Your task to perform on an android device: Search for the new iphone 13 pro on Etsy. Image 0: 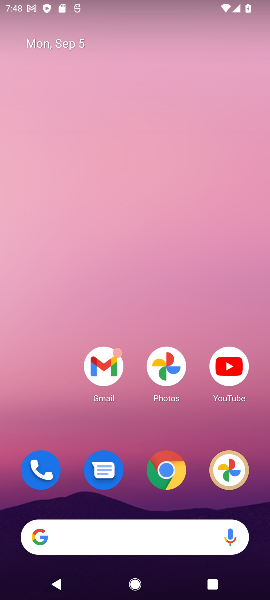
Step 0: click (146, 38)
Your task to perform on an android device: Search for the new iphone 13 pro on Etsy. Image 1: 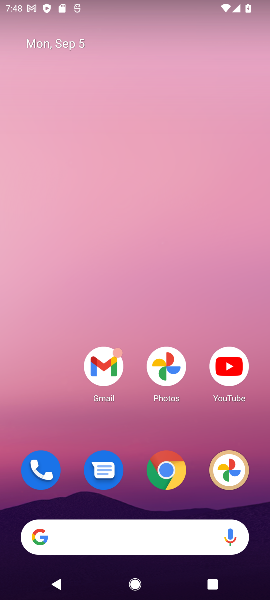
Step 1: click (144, 472)
Your task to perform on an android device: Search for the new iphone 13 pro on Etsy. Image 2: 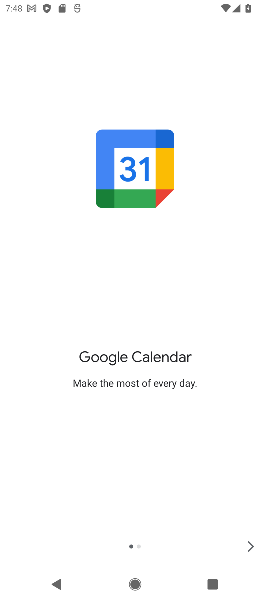
Step 2: press home button
Your task to perform on an android device: Search for the new iphone 13 pro on Etsy. Image 3: 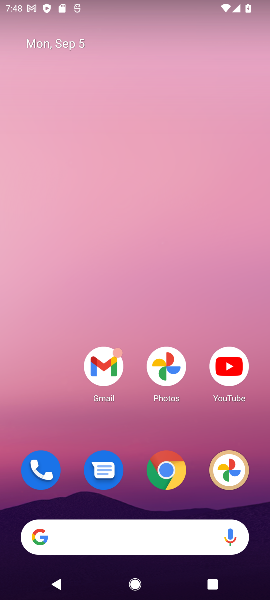
Step 3: click (186, 469)
Your task to perform on an android device: Search for the new iphone 13 pro on Etsy. Image 4: 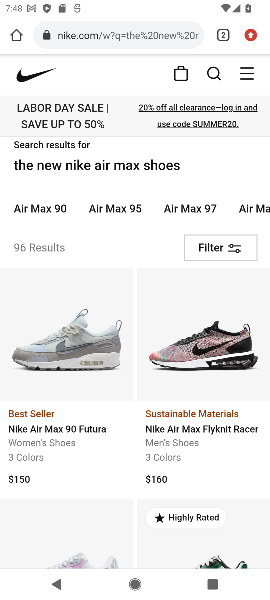
Step 4: click (219, 29)
Your task to perform on an android device: Search for the new iphone 13 pro on Etsy. Image 5: 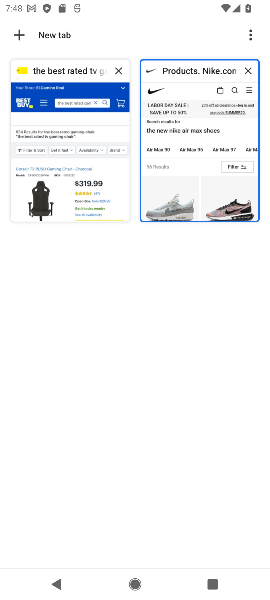
Step 5: click (12, 36)
Your task to perform on an android device: Search for the new iphone 13 pro on Etsy. Image 6: 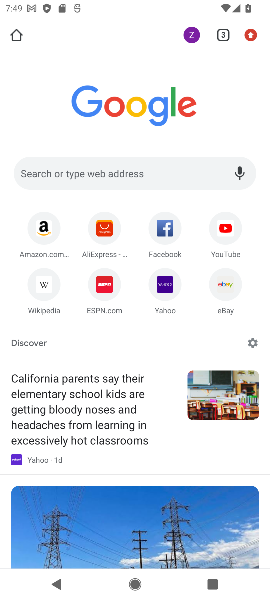
Step 6: click (97, 181)
Your task to perform on an android device: Search for the new iphone 13 pro on Etsy. Image 7: 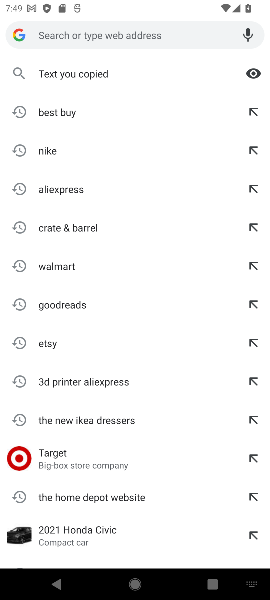
Step 7: type "Etsy"
Your task to perform on an android device: Search for the new iphone 13 pro on Etsy. Image 8: 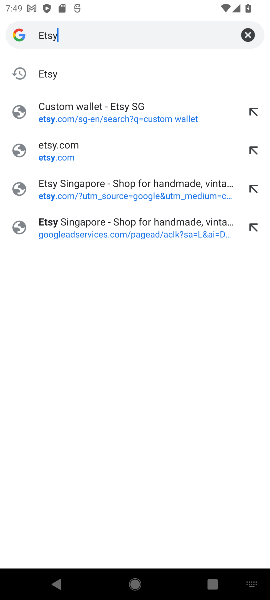
Step 8: type ""
Your task to perform on an android device: Search for the new iphone 13 pro on Etsy. Image 9: 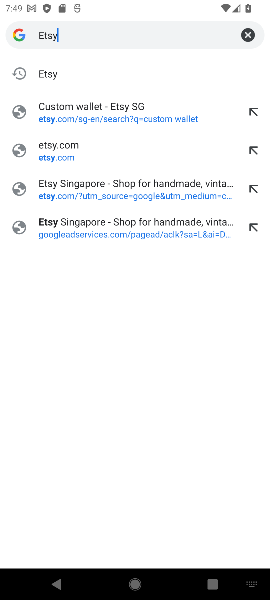
Step 9: click (50, 82)
Your task to perform on an android device: Search for the new iphone 13 pro on Etsy. Image 10: 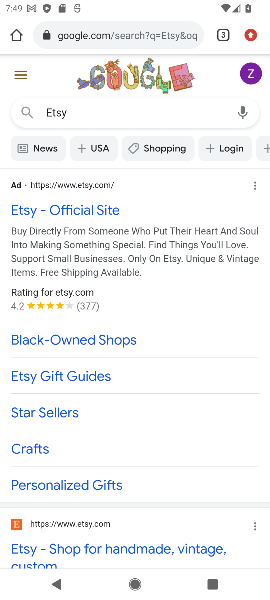
Step 10: click (59, 216)
Your task to perform on an android device: Search for the new iphone 13 pro on Etsy. Image 11: 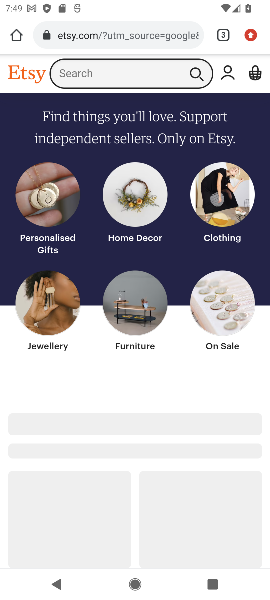
Step 11: click (118, 86)
Your task to perform on an android device: Search for the new iphone 13 pro on Etsy. Image 12: 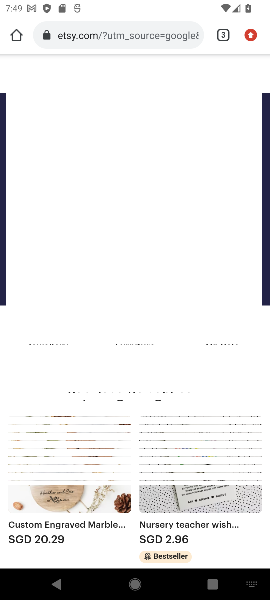
Step 12: type "the new iphone 13 pro "
Your task to perform on an android device: Search for the new iphone 13 pro on Etsy. Image 13: 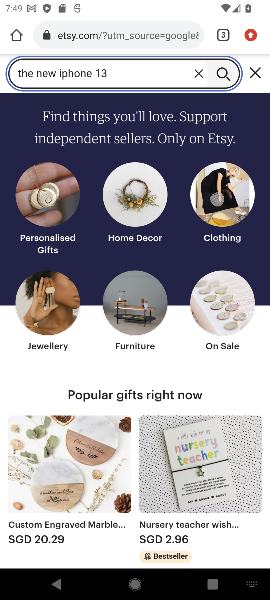
Step 13: type ""
Your task to perform on an android device: Search for the new iphone 13 pro on Etsy. Image 14: 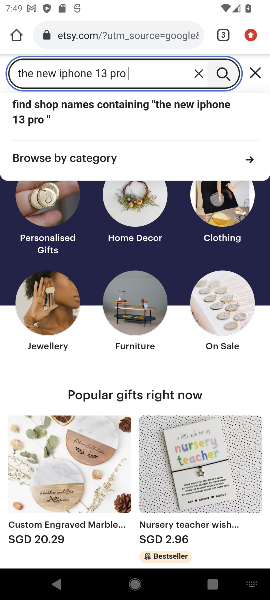
Step 14: click (224, 71)
Your task to perform on an android device: Search for the new iphone 13 pro on Etsy. Image 15: 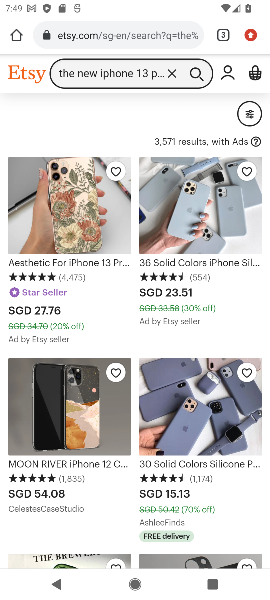
Step 15: drag from (150, 334) to (123, 116)
Your task to perform on an android device: Search for the new iphone 13 pro on Etsy. Image 16: 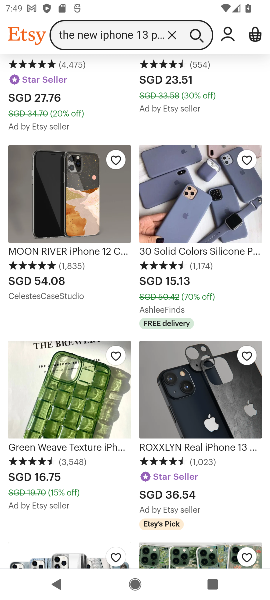
Step 16: click (149, 181)
Your task to perform on an android device: Search for the new iphone 13 pro on Etsy. Image 17: 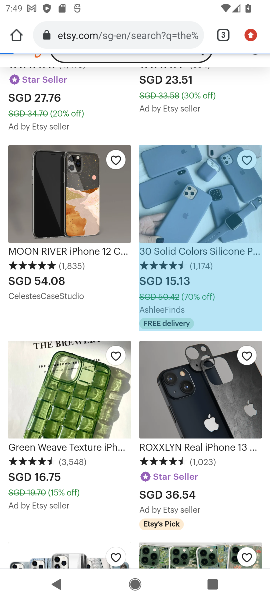
Step 17: task complete